Your task to perform on an android device: open sync settings in chrome Image 0: 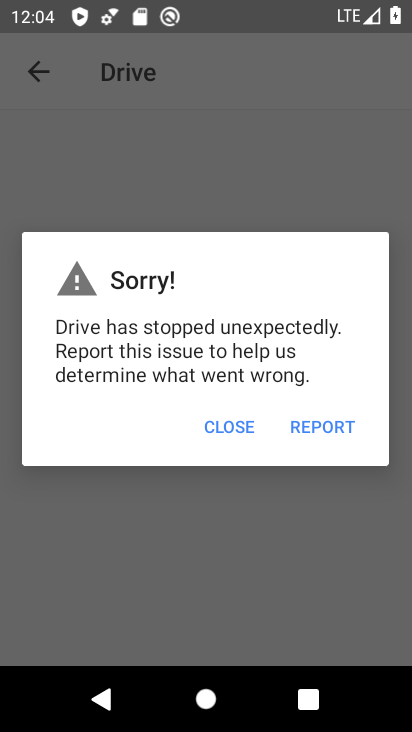
Step 0: press home button
Your task to perform on an android device: open sync settings in chrome Image 1: 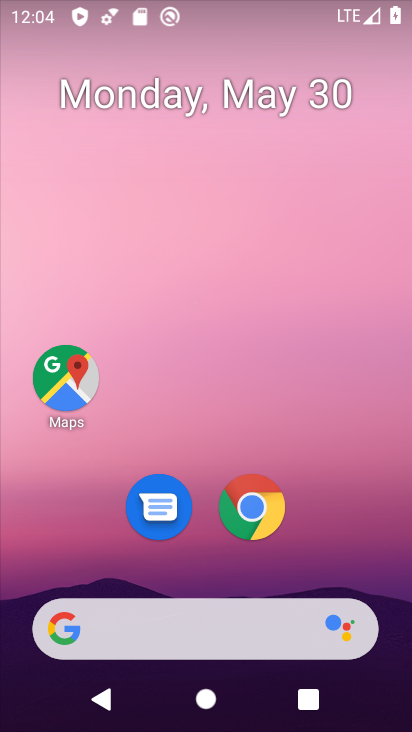
Step 1: click (257, 500)
Your task to perform on an android device: open sync settings in chrome Image 2: 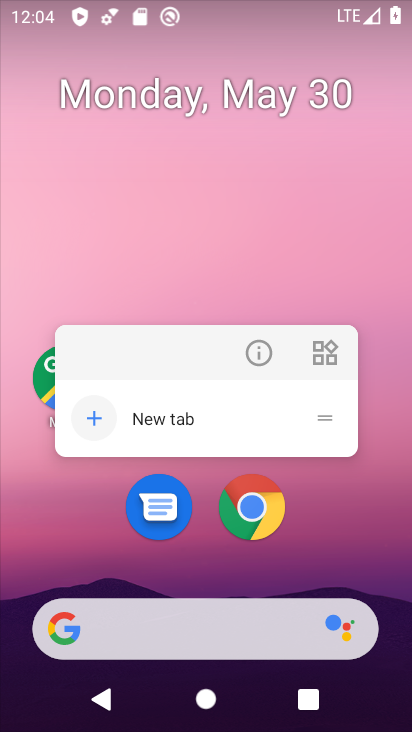
Step 2: click (252, 513)
Your task to perform on an android device: open sync settings in chrome Image 3: 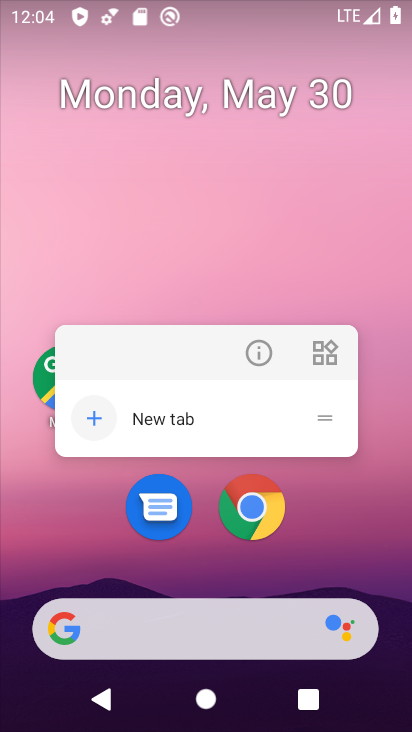
Step 3: click (337, 499)
Your task to perform on an android device: open sync settings in chrome Image 4: 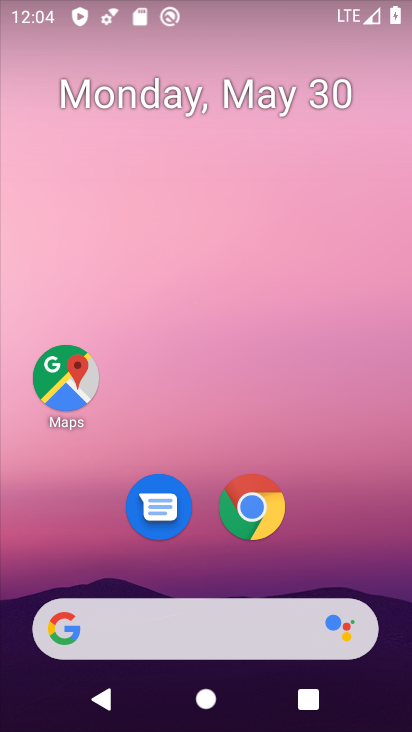
Step 4: drag from (310, 562) to (258, 65)
Your task to perform on an android device: open sync settings in chrome Image 5: 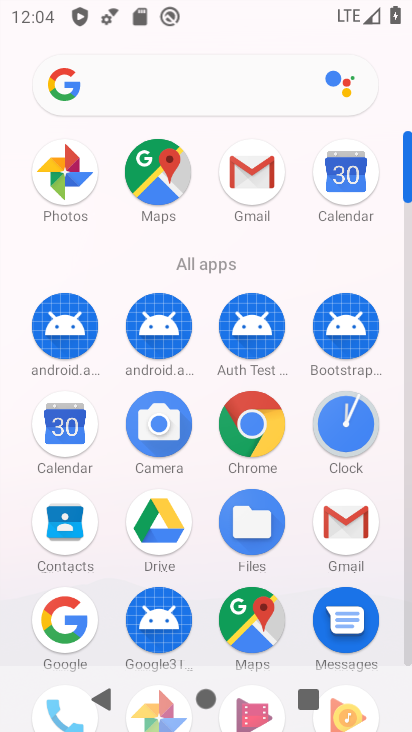
Step 5: click (248, 422)
Your task to perform on an android device: open sync settings in chrome Image 6: 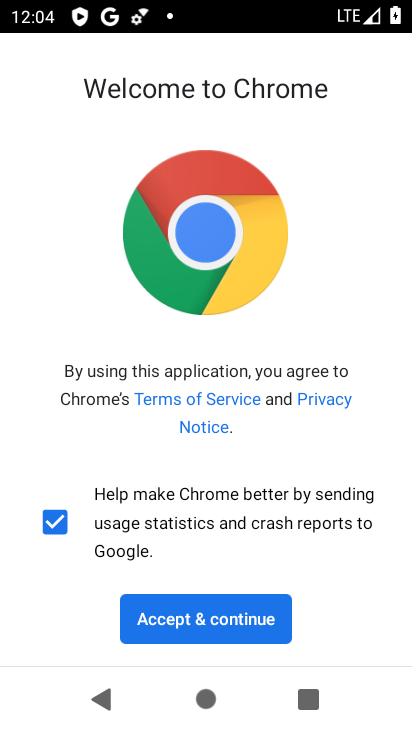
Step 6: click (284, 620)
Your task to perform on an android device: open sync settings in chrome Image 7: 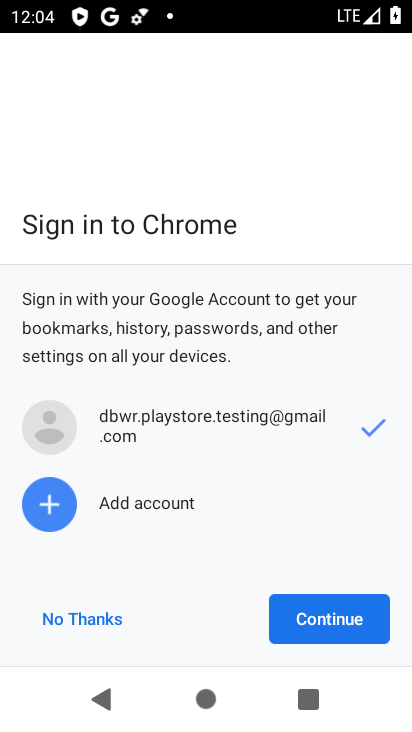
Step 7: click (318, 617)
Your task to perform on an android device: open sync settings in chrome Image 8: 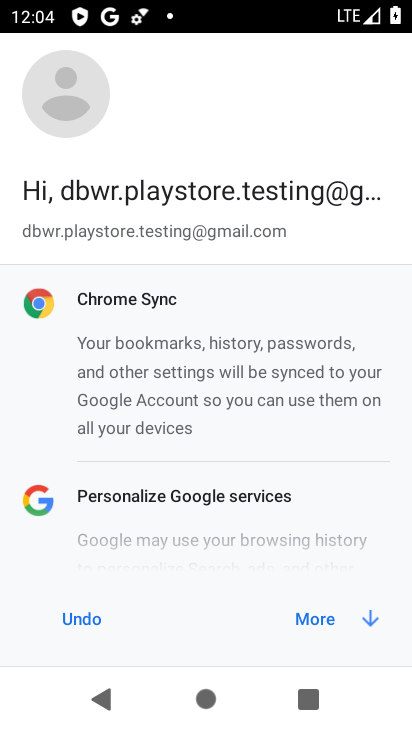
Step 8: click (318, 617)
Your task to perform on an android device: open sync settings in chrome Image 9: 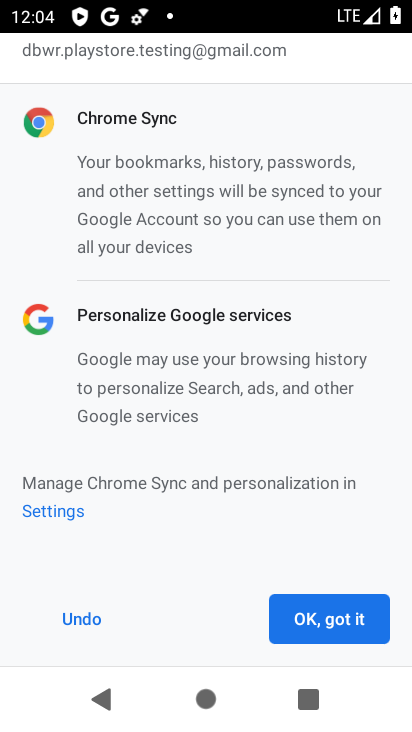
Step 9: click (318, 617)
Your task to perform on an android device: open sync settings in chrome Image 10: 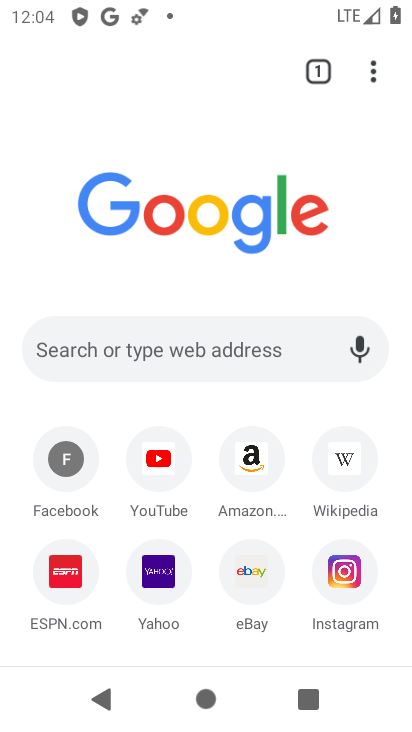
Step 10: click (377, 71)
Your task to perform on an android device: open sync settings in chrome Image 11: 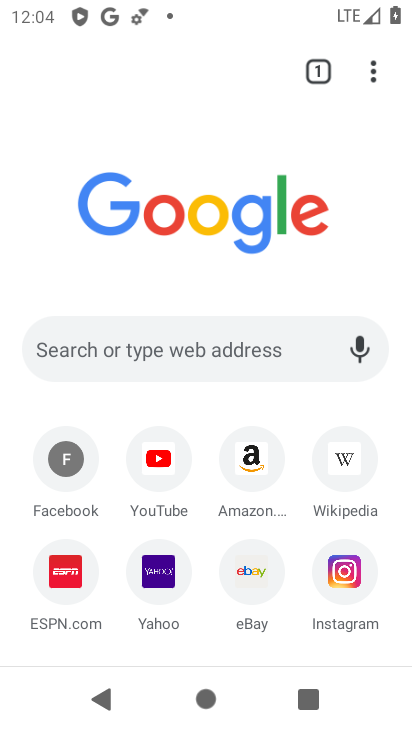
Step 11: click (377, 71)
Your task to perform on an android device: open sync settings in chrome Image 12: 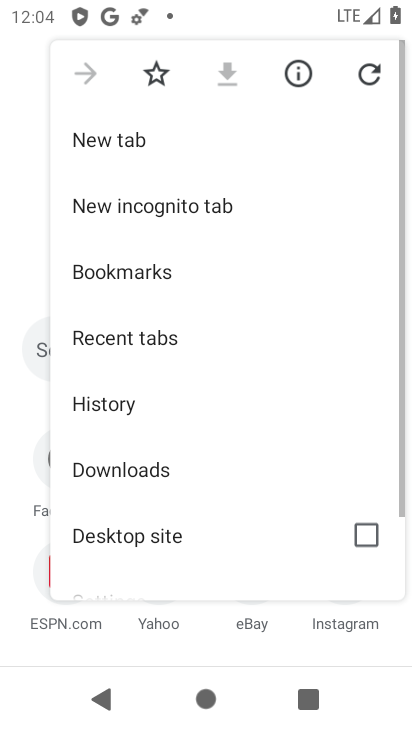
Step 12: drag from (377, 71) to (406, 428)
Your task to perform on an android device: open sync settings in chrome Image 13: 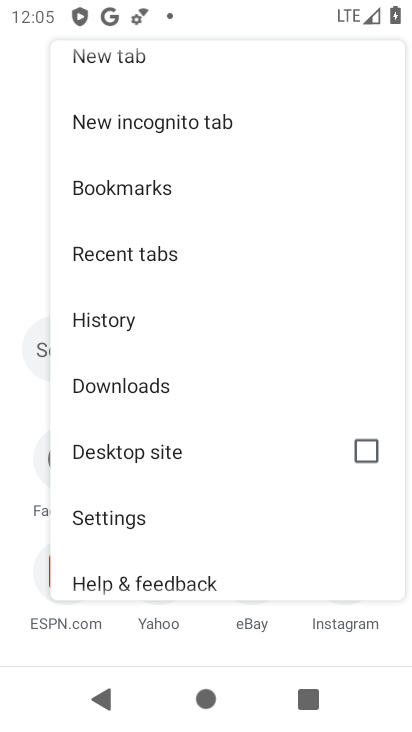
Step 13: click (118, 506)
Your task to perform on an android device: open sync settings in chrome Image 14: 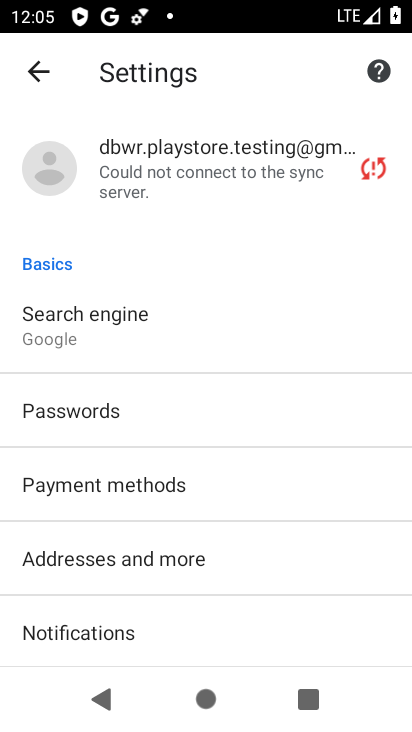
Step 14: click (57, 158)
Your task to perform on an android device: open sync settings in chrome Image 15: 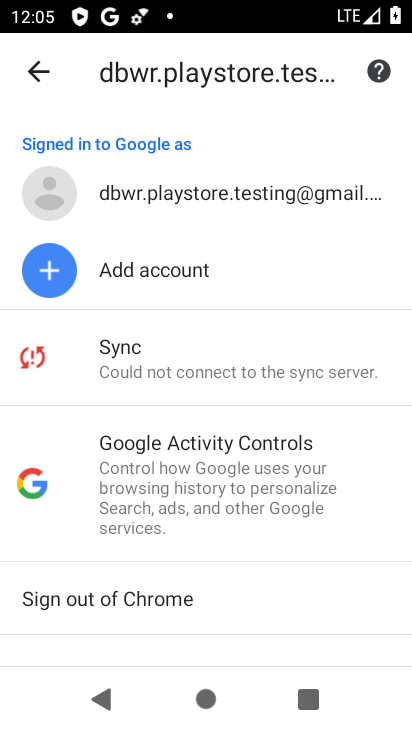
Step 15: click (159, 362)
Your task to perform on an android device: open sync settings in chrome Image 16: 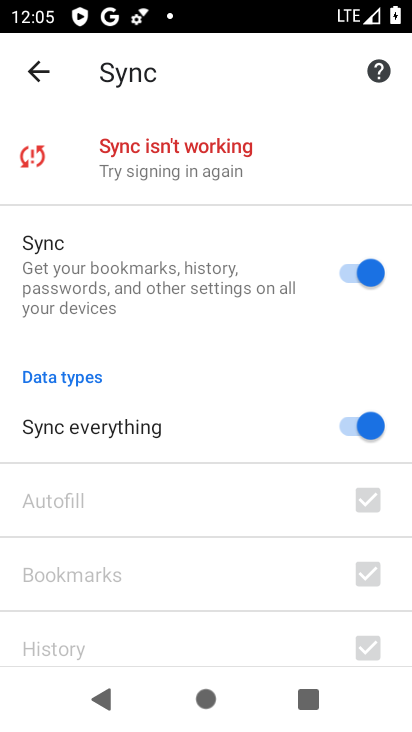
Step 16: task complete